Your task to perform on an android device: open wifi settings Image 0: 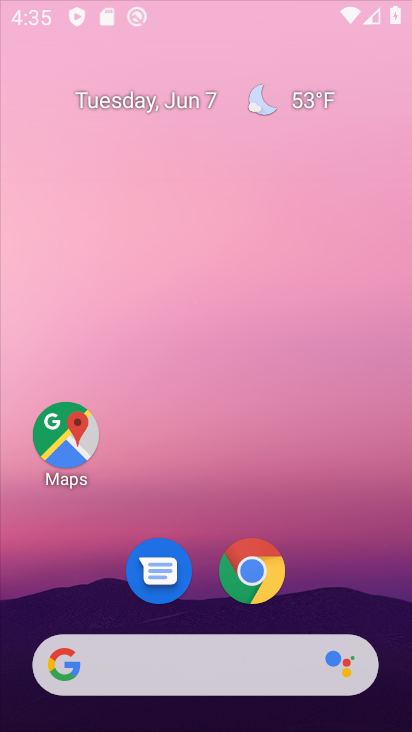
Step 0: click (187, 283)
Your task to perform on an android device: open wifi settings Image 1: 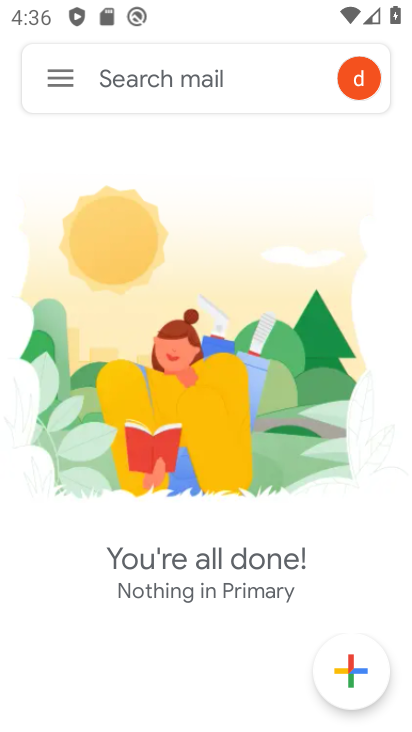
Step 1: click (69, 86)
Your task to perform on an android device: open wifi settings Image 2: 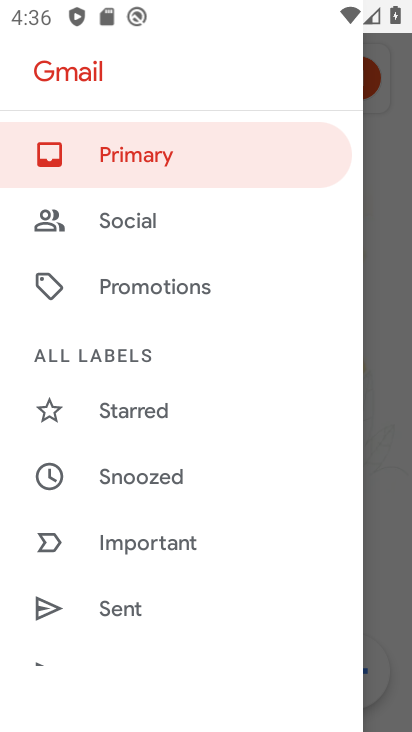
Step 2: press home button
Your task to perform on an android device: open wifi settings Image 3: 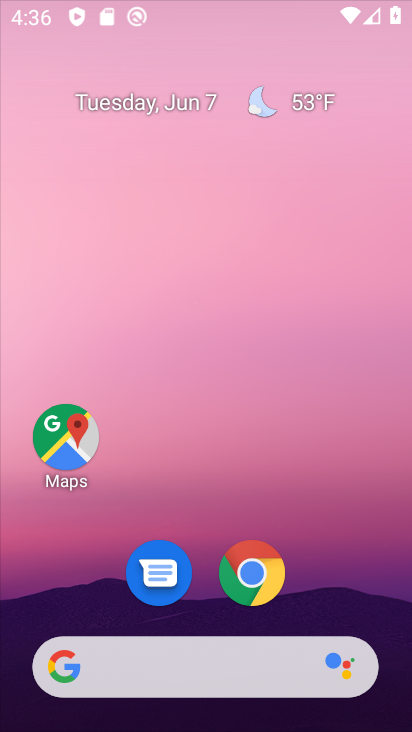
Step 3: drag from (164, 590) to (175, 206)
Your task to perform on an android device: open wifi settings Image 4: 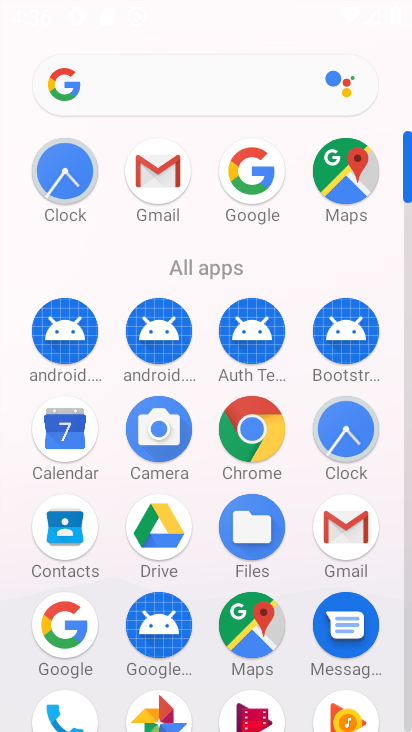
Step 4: drag from (107, 604) to (107, 232)
Your task to perform on an android device: open wifi settings Image 5: 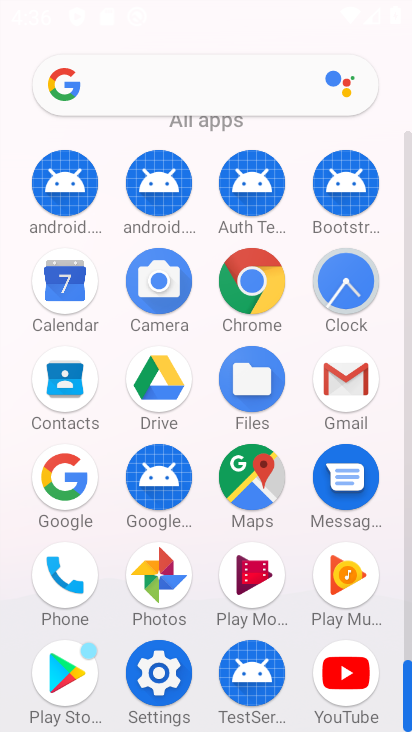
Step 5: click (167, 657)
Your task to perform on an android device: open wifi settings Image 6: 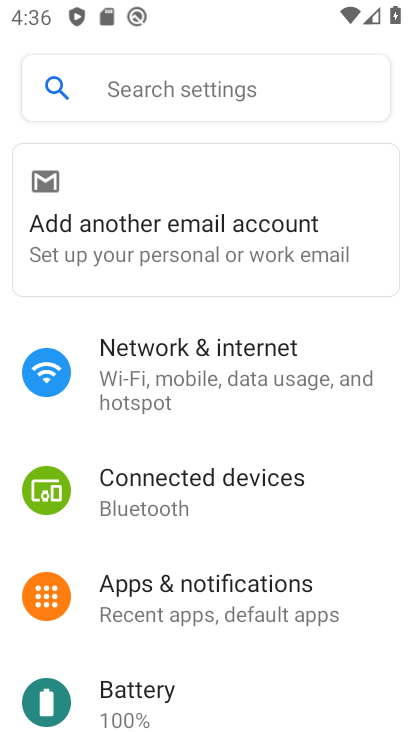
Step 6: click (260, 359)
Your task to perform on an android device: open wifi settings Image 7: 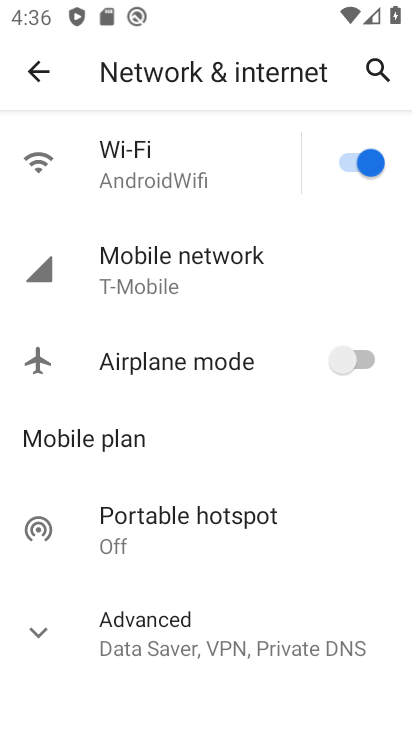
Step 7: click (169, 163)
Your task to perform on an android device: open wifi settings Image 8: 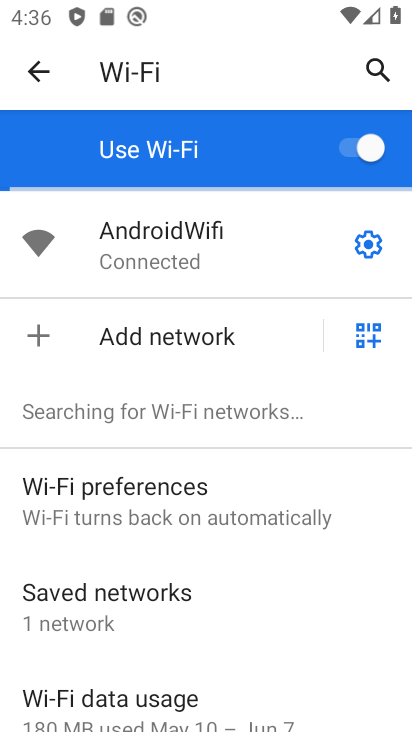
Step 8: click (373, 244)
Your task to perform on an android device: open wifi settings Image 9: 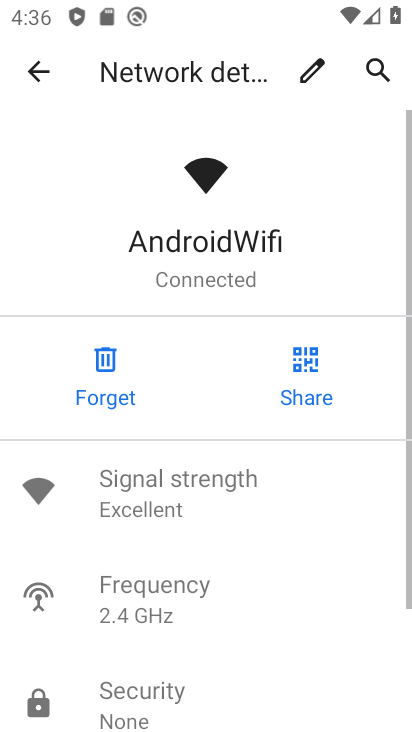
Step 9: drag from (222, 692) to (207, 329)
Your task to perform on an android device: open wifi settings Image 10: 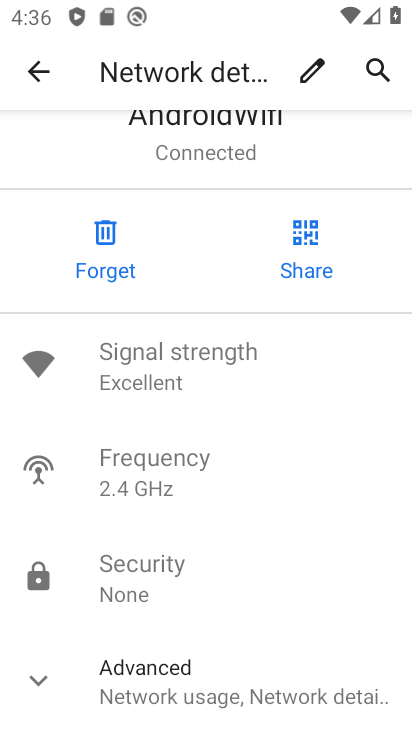
Step 10: click (220, 687)
Your task to perform on an android device: open wifi settings Image 11: 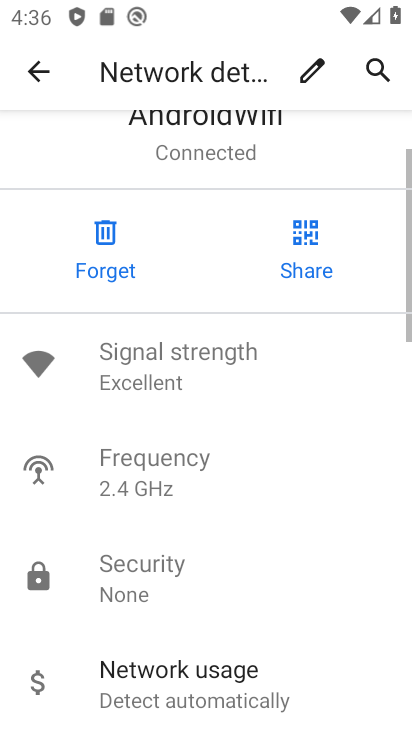
Step 11: task complete